Your task to perform on an android device: Show me the alarms in the clock app Image 0: 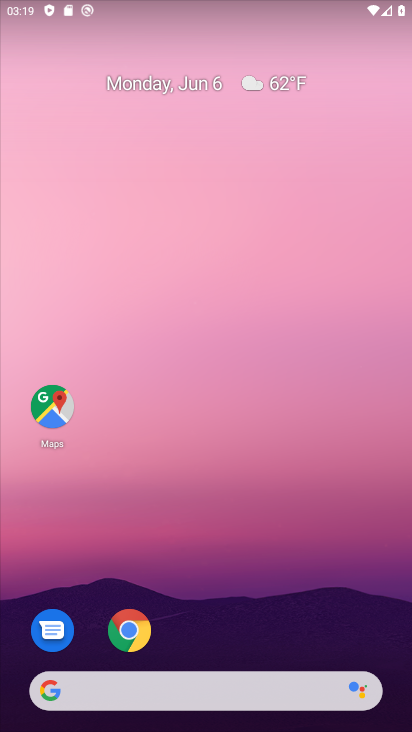
Step 0: press home button
Your task to perform on an android device: Show me the alarms in the clock app Image 1: 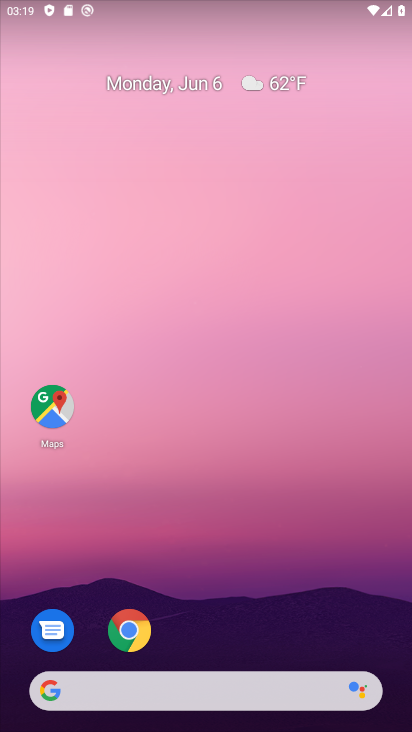
Step 1: drag from (177, 613) to (212, 67)
Your task to perform on an android device: Show me the alarms in the clock app Image 2: 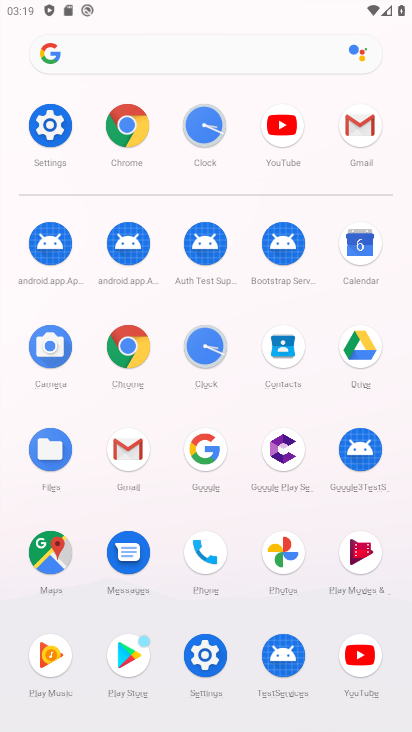
Step 2: click (192, 350)
Your task to perform on an android device: Show me the alarms in the clock app Image 3: 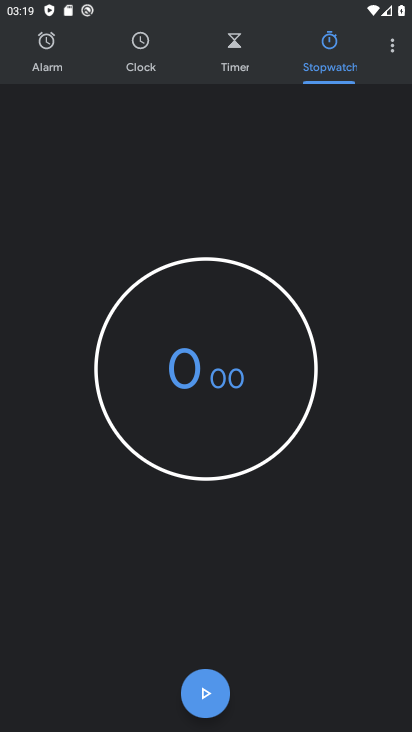
Step 3: click (70, 56)
Your task to perform on an android device: Show me the alarms in the clock app Image 4: 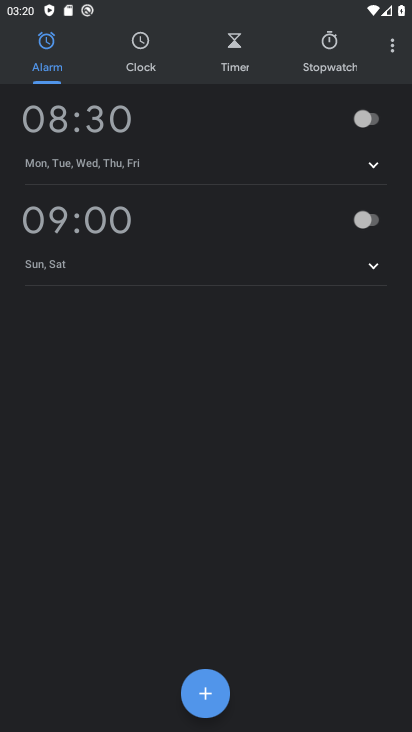
Step 4: task complete